Your task to perform on an android device: delete the emails in spam in the gmail app Image 0: 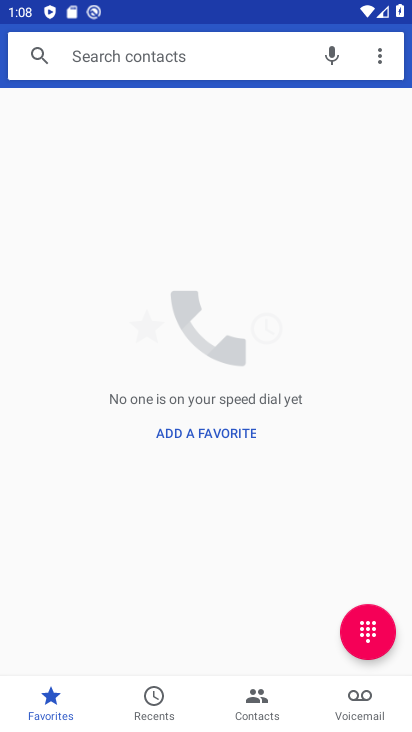
Step 0: press back button
Your task to perform on an android device: delete the emails in spam in the gmail app Image 1: 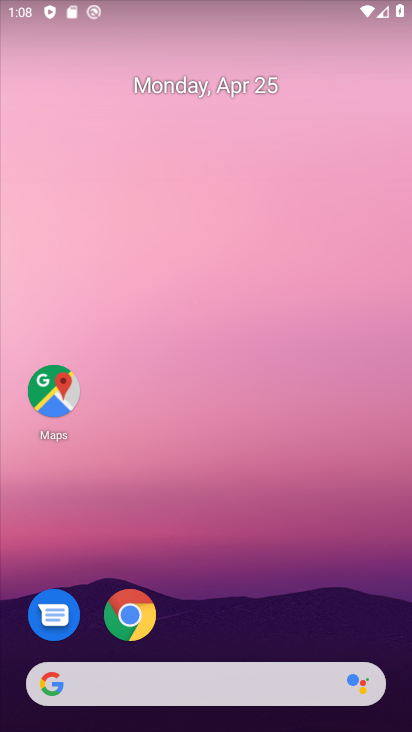
Step 1: drag from (232, 566) to (243, 17)
Your task to perform on an android device: delete the emails in spam in the gmail app Image 2: 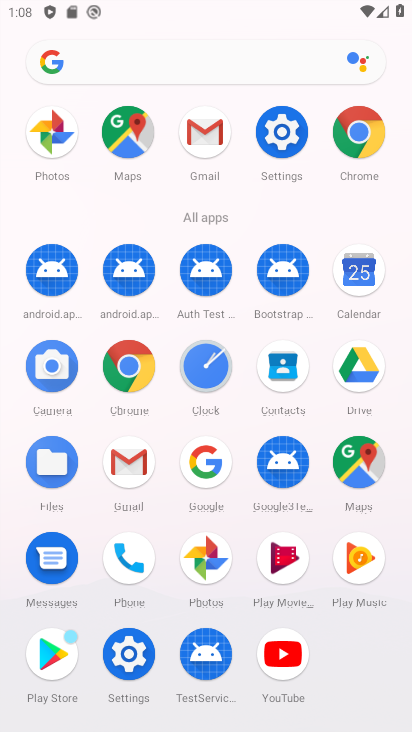
Step 2: click (203, 131)
Your task to perform on an android device: delete the emails in spam in the gmail app Image 3: 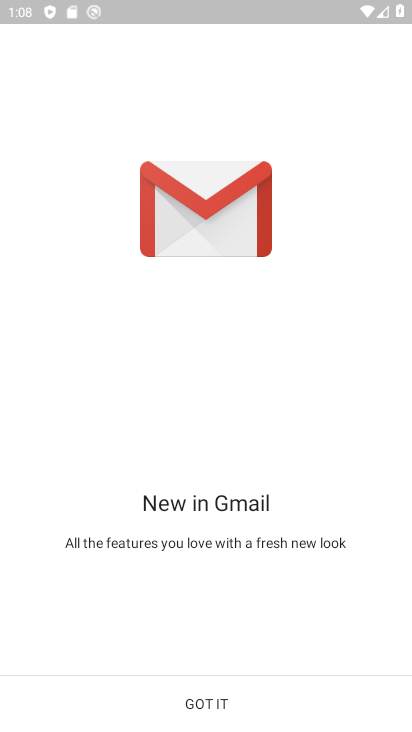
Step 3: click (218, 707)
Your task to perform on an android device: delete the emails in spam in the gmail app Image 4: 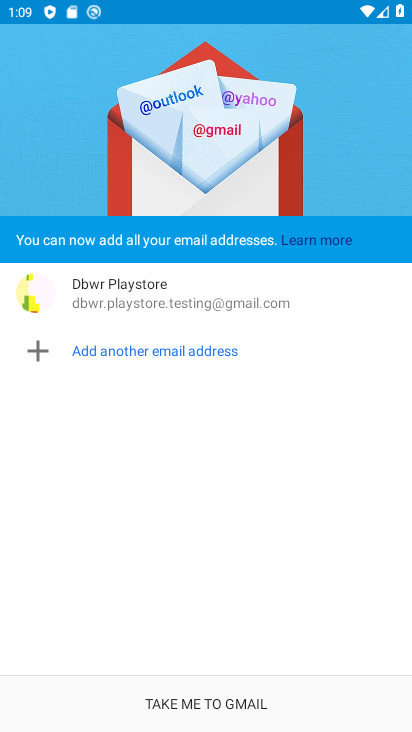
Step 4: click (218, 707)
Your task to perform on an android device: delete the emails in spam in the gmail app Image 5: 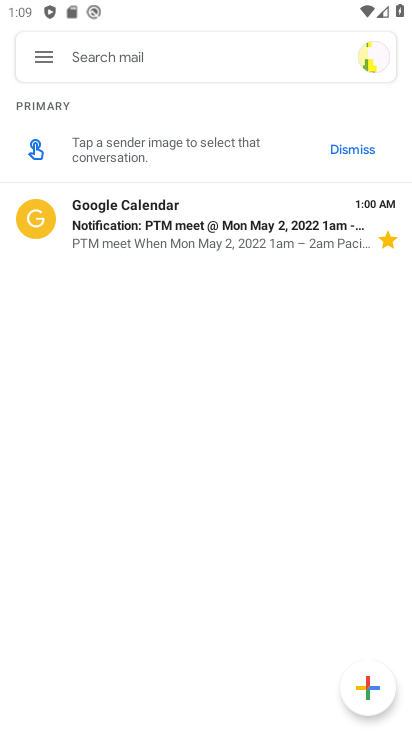
Step 5: click (44, 60)
Your task to perform on an android device: delete the emails in spam in the gmail app Image 6: 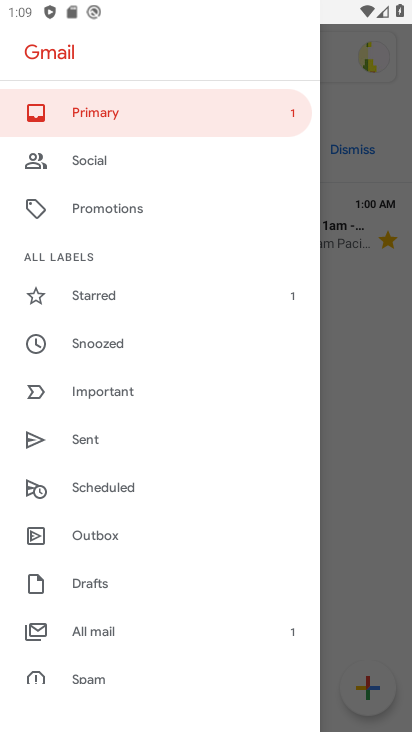
Step 6: drag from (112, 612) to (163, 522)
Your task to perform on an android device: delete the emails in spam in the gmail app Image 7: 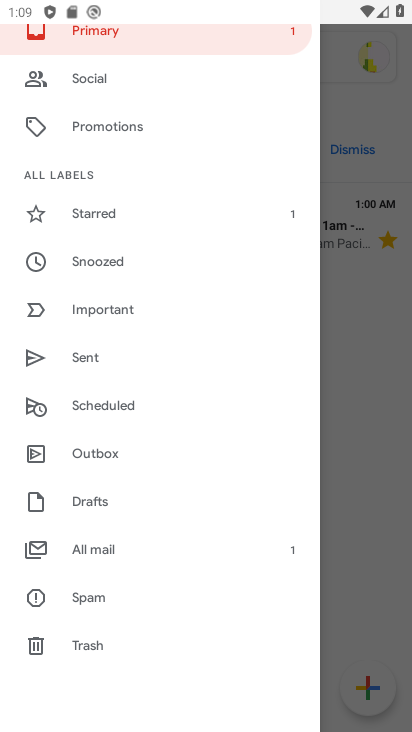
Step 7: click (96, 599)
Your task to perform on an android device: delete the emails in spam in the gmail app Image 8: 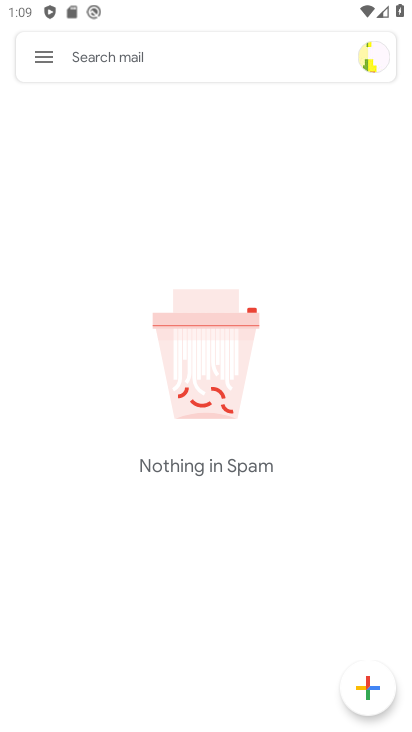
Step 8: task complete